Your task to perform on an android device: Open the stopwatch Image 0: 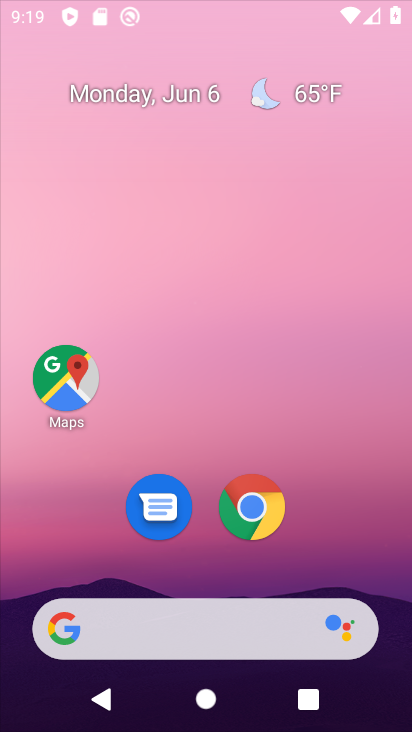
Step 0: click (208, 227)
Your task to perform on an android device: Open the stopwatch Image 1: 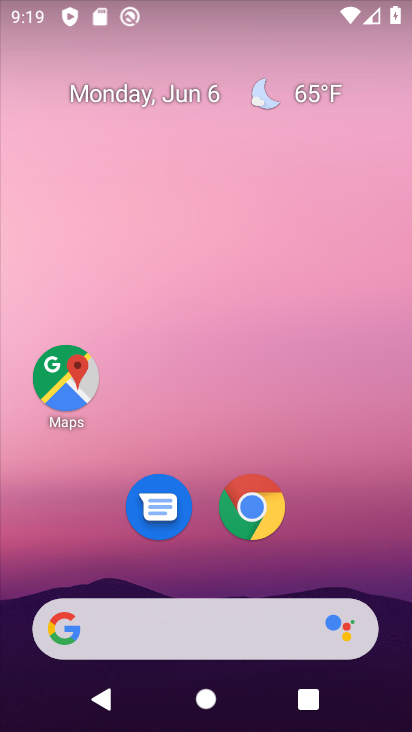
Step 1: drag from (311, 517) to (311, 235)
Your task to perform on an android device: Open the stopwatch Image 2: 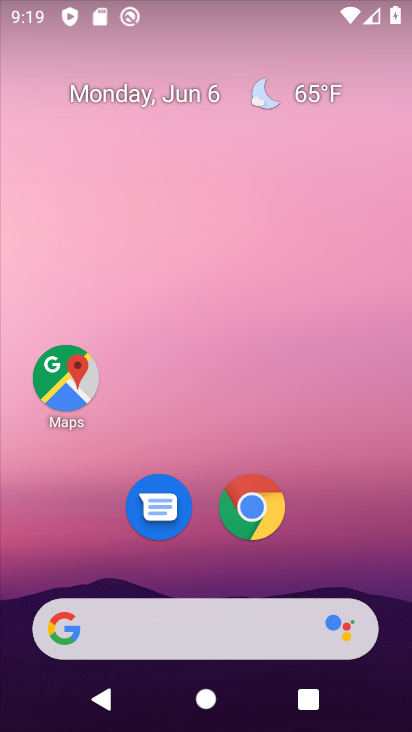
Step 2: drag from (187, 554) to (220, 241)
Your task to perform on an android device: Open the stopwatch Image 3: 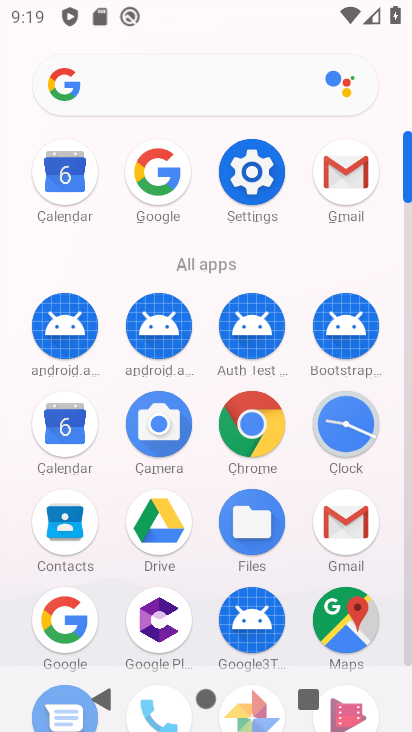
Step 3: click (349, 412)
Your task to perform on an android device: Open the stopwatch Image 4: 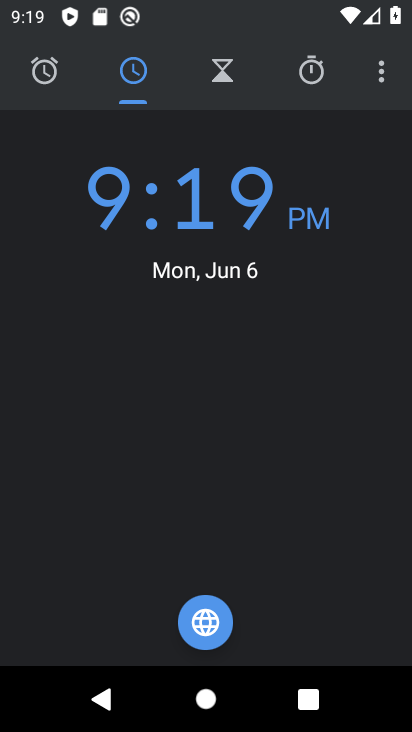
Step 4: click (311, 79)
Your task to perform on an android device: Open the stopwatch Image 5: 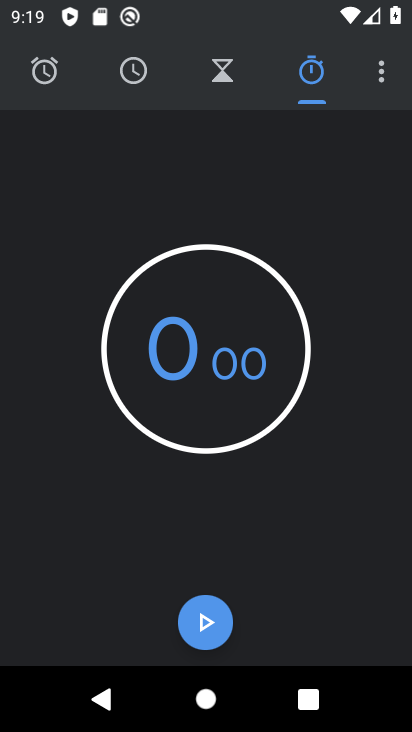
Step 5: task complete